Your task to perform on an android device: Go to Google Image 0: 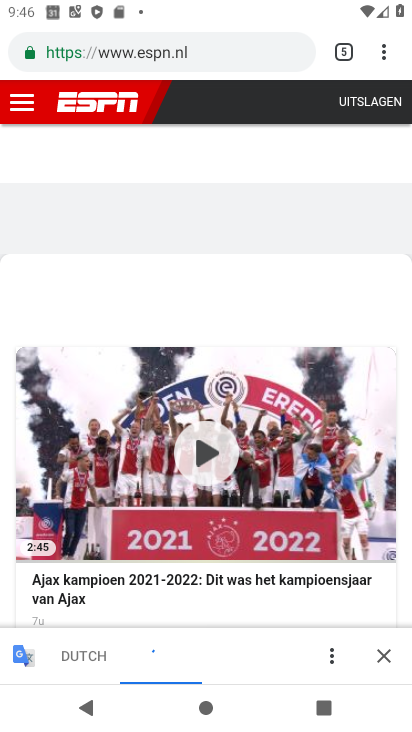
Step 0: press home button
Your task to perform on an android device: Go to Google Image 1: 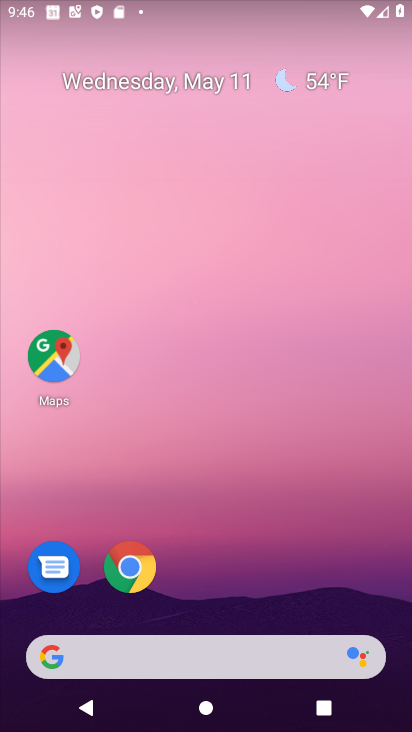
Step 1: click (61, 659)
Your task to perform on an android device: Go to Google Image 2: 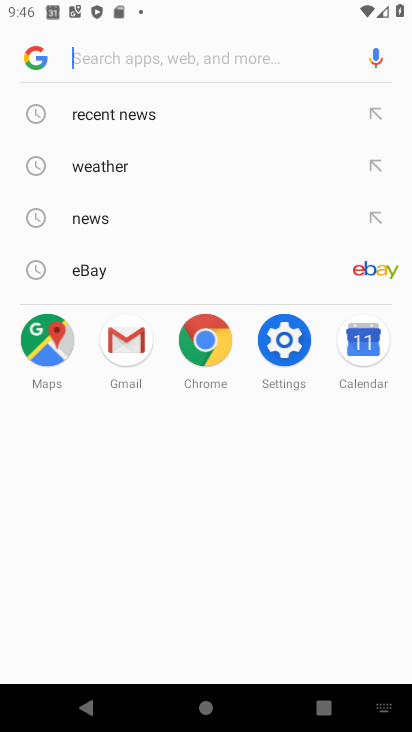
Step 2: click (36, 67)
Your task to perform on an android device: Go to Google Image 3: 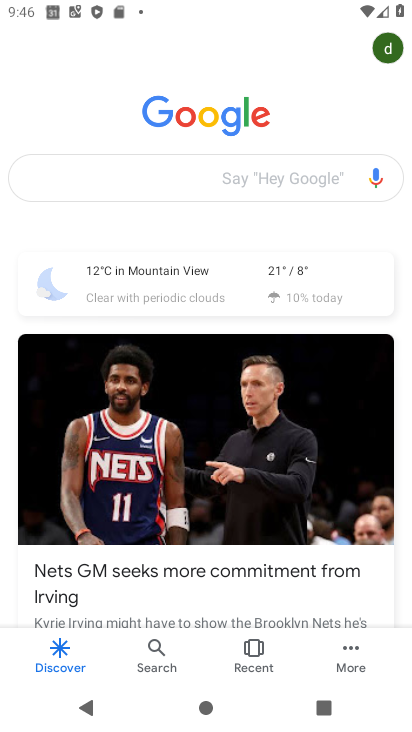
Step 3: task complete